Your task to perform on an android device: check battery use Image 0: 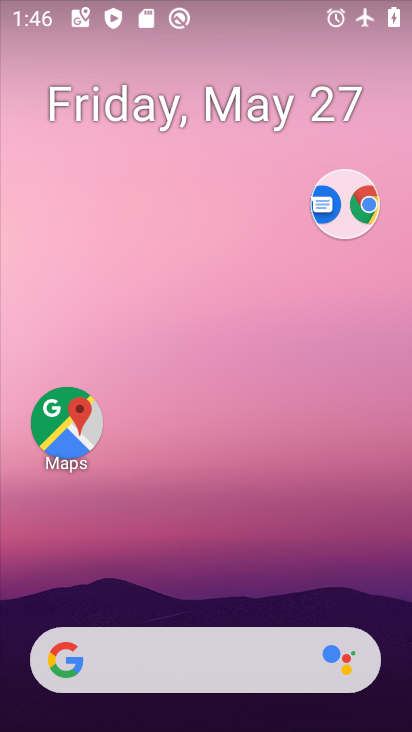
Step 0: drag from (184, 707) to (213, 294)
Your task to perform on an android device: check battery use Image 1: 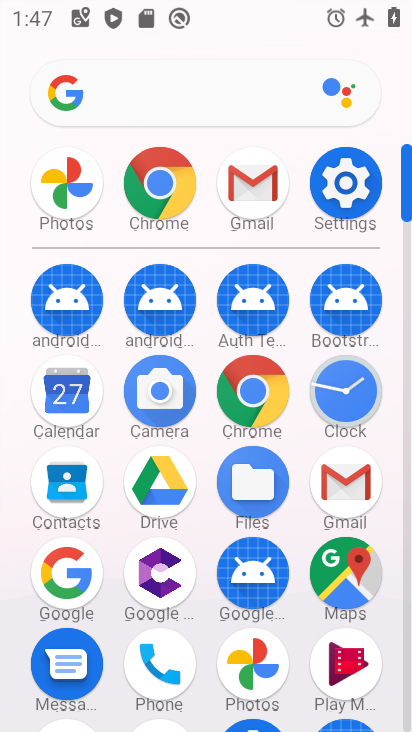
Step 1: click (351, 210)
Your task to perform on an android device: check battery use Image 2: 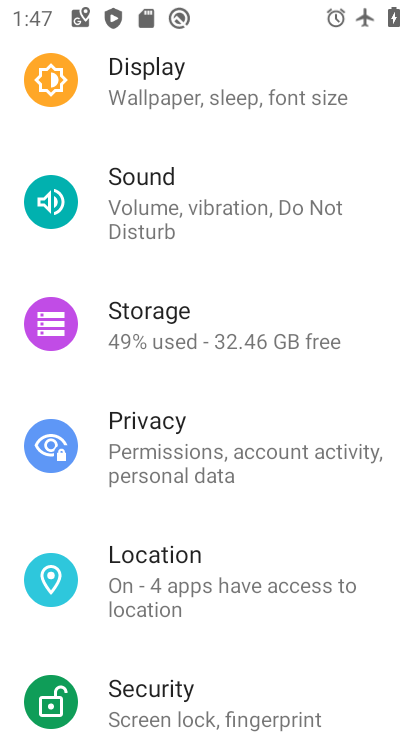
Step 2: drag from (261, 323) to (209, 560)
Your task to perform on an android device: check battery use Image 3: 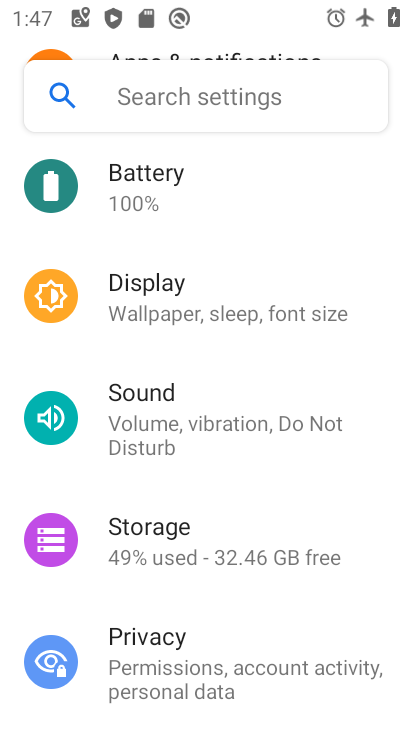
Step 3: click (218, 195)
Your task to perform on an android device: check battery use Image 4: 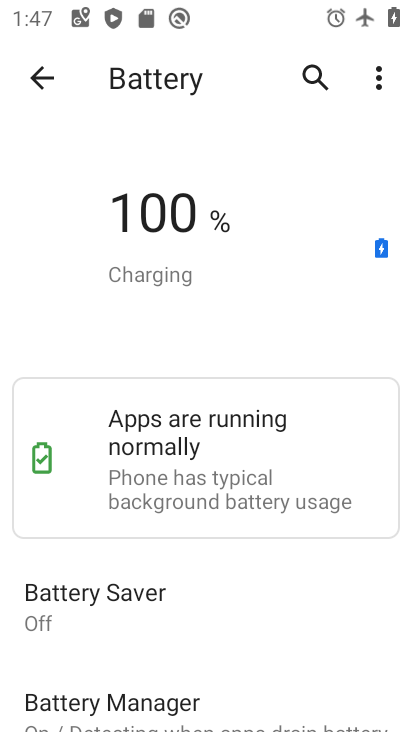
Step 4: task complete